Your task to perform on an android device: Open Google Chrome Image 0: 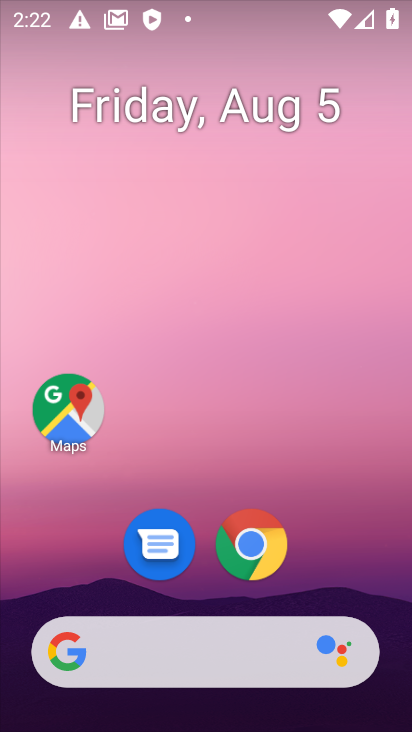
Step 0: drag from (236, 645) to (258, 27)
Your task to perform on an android device: Open Google Chrome Image 1: 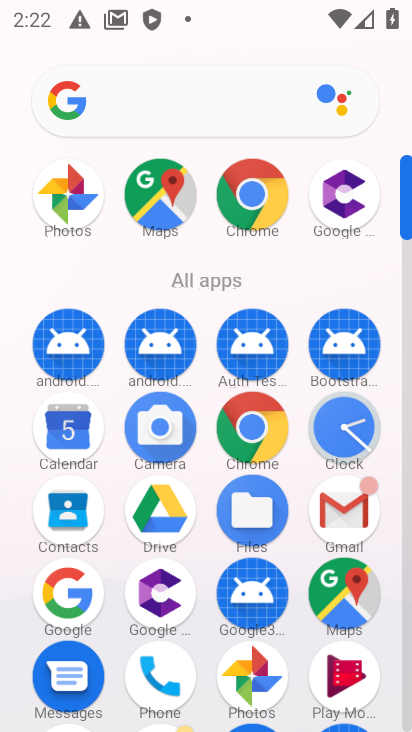
Step 1: click (229, 196)
Your task to perform on an android device: Open Google Chrome Image 2: 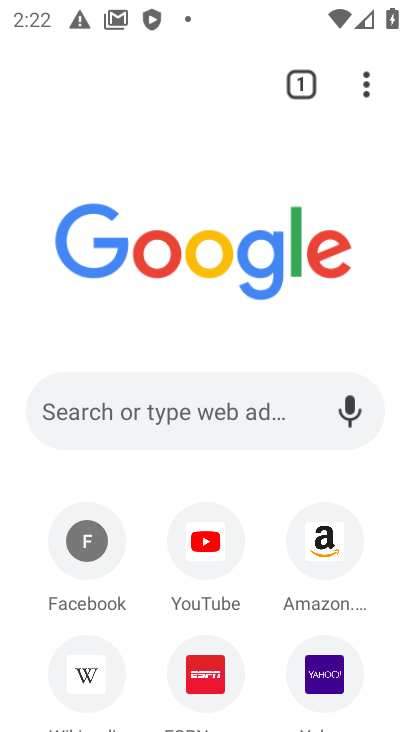
Step 2: task complete